Your task to perform on an android device: Open wifi settings Image 0: 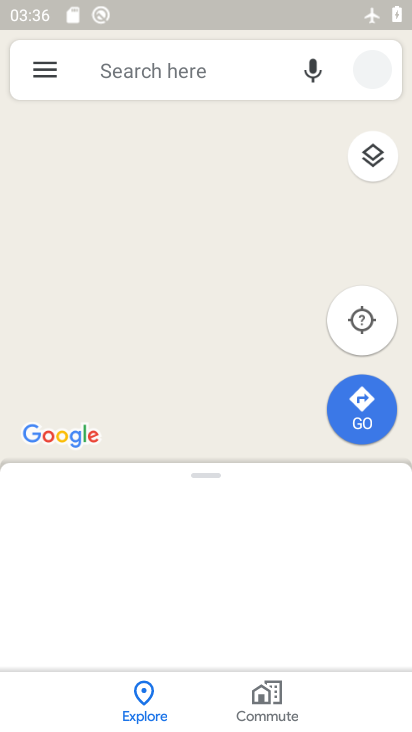
Step 0: press home button
Your task to perform on an android device: Open wifi settings Image 1: 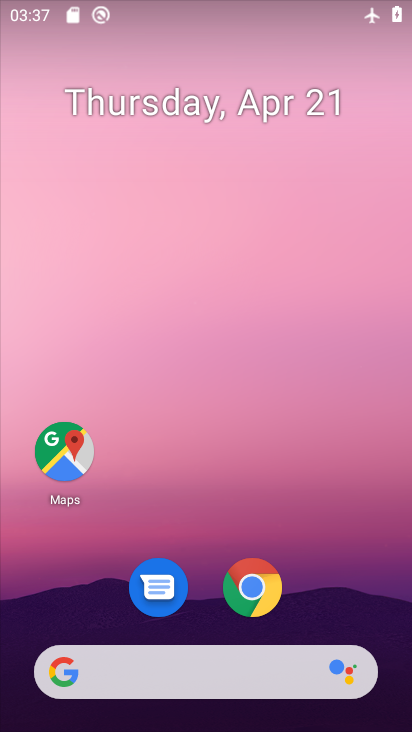
Step 1: drag from (344, 589) to (371, 166)
Your task to perform on an android device: Open wifi settings Image 2: 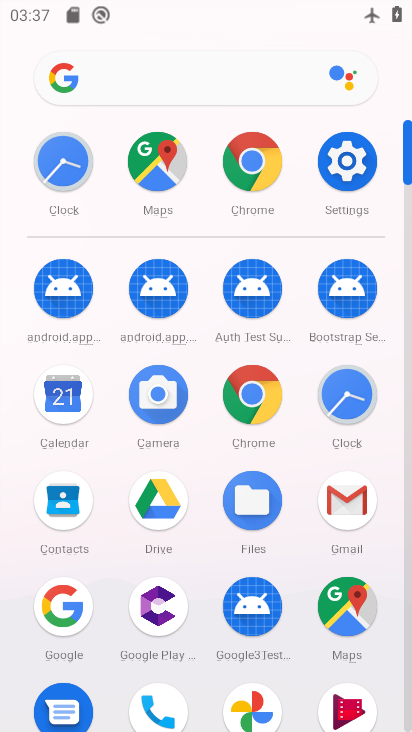
Step 2: click (346, 169)
Your task to perform on an android device: Open wifi settings Image 3: 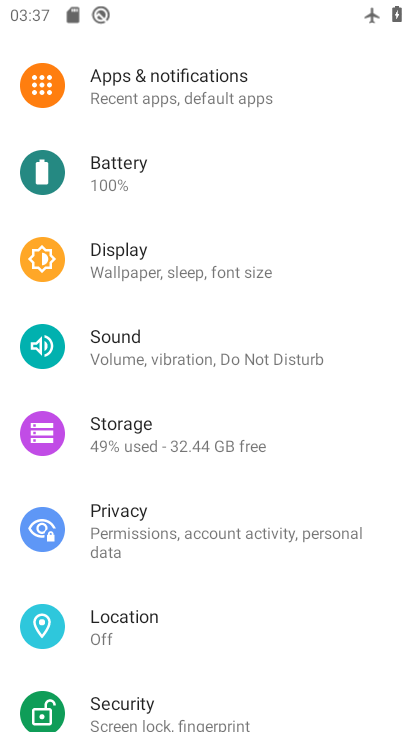
Step 3: drag from (339, 638) to (340, 394)
Your task to perform on an android device: Open wifi settings Image 4: 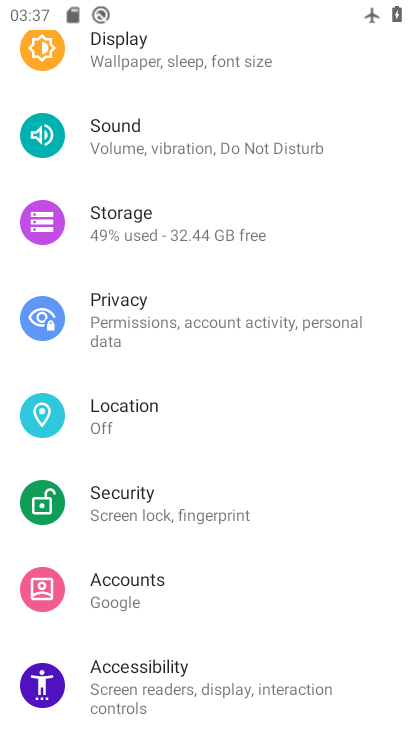
Step 4: drag from (319, 610) to (331, 456)
Your task to perform on an android device: Open wifi settings Image 5: 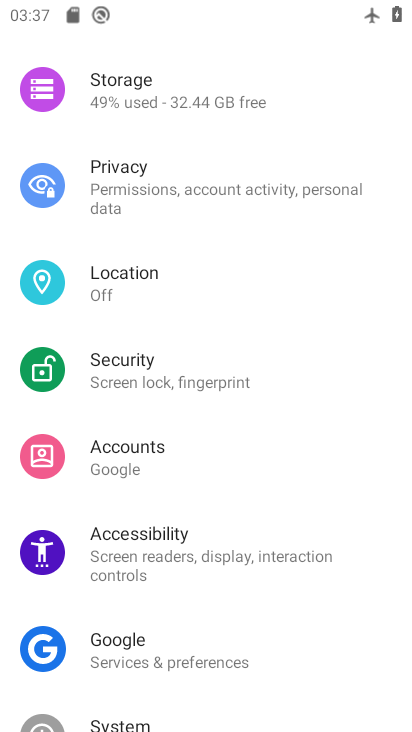
Step 5: drag from (345, 640) to (359, 453)
Your task to perform on an android device: Open wifi settings Image 6: 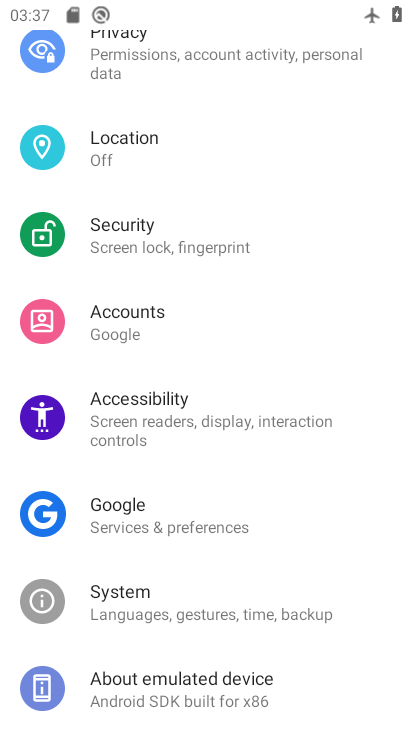
Step 6: drag from (368, 357) to (369, 481)
Your task to perform on an android device: Open wifi settings Image 7: 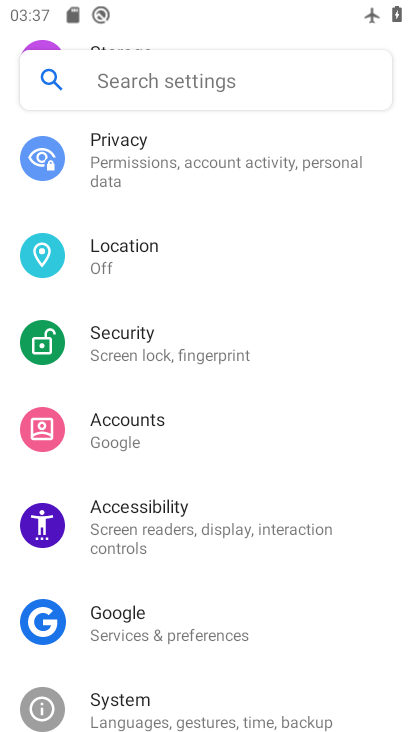
Step 7: drag from (358, 267) to (335, 451)
Your task to perform on an android device: Open wifi settings Image 8: 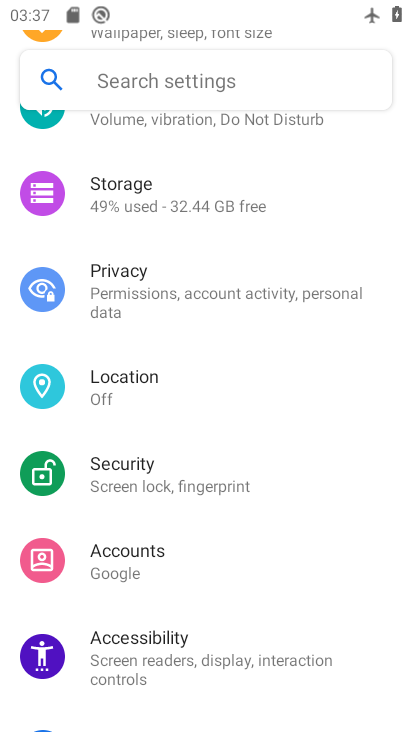
Step 8: drag from (376, 235) to (365, 405)
Your task to perform on an android device: Open wifi settings Image 9: 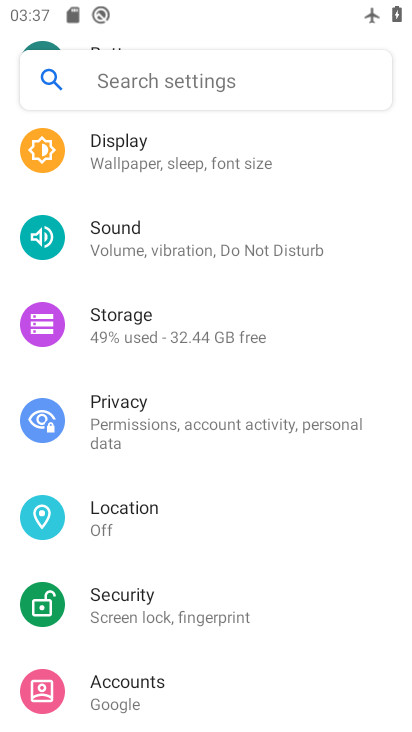
Step 9: drag from (363, 257) to (373, 401)
Your task to perform on an android device: Open wifi settings Image 10: 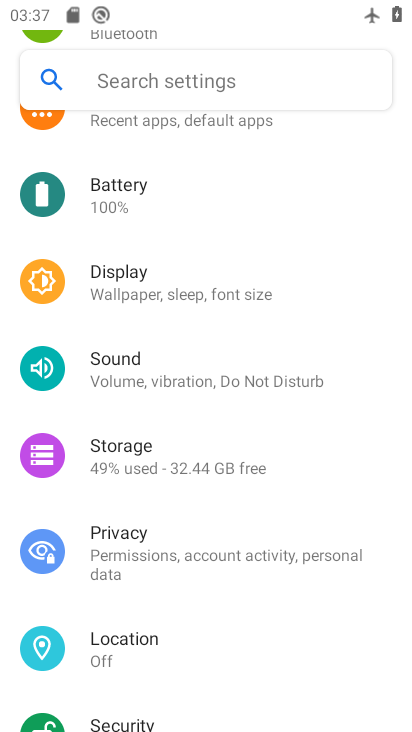
Step 10: drag from (361, 276) to (362, 409)
Your task to perform on an android device: Open wifi settings Image 11: 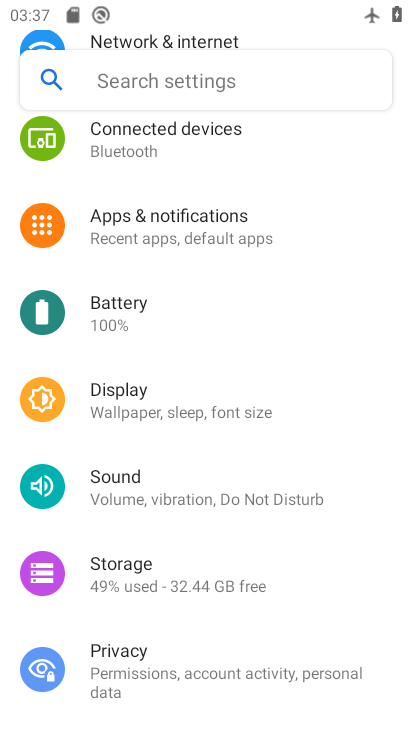
Step 11: drag from (376, 222) to (380, 344)
Your task to perform on an android device: Open wifi settings Image 12: 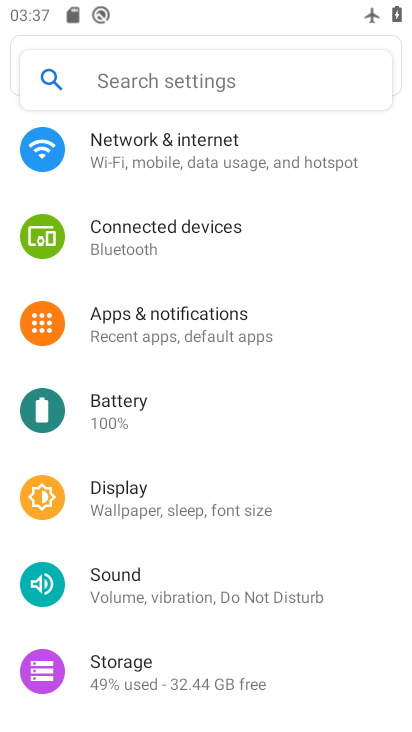
Step 12: drag from (350, 242) to (347, 369)
Your task to perform on an android device: Open wifi settings Image 13: 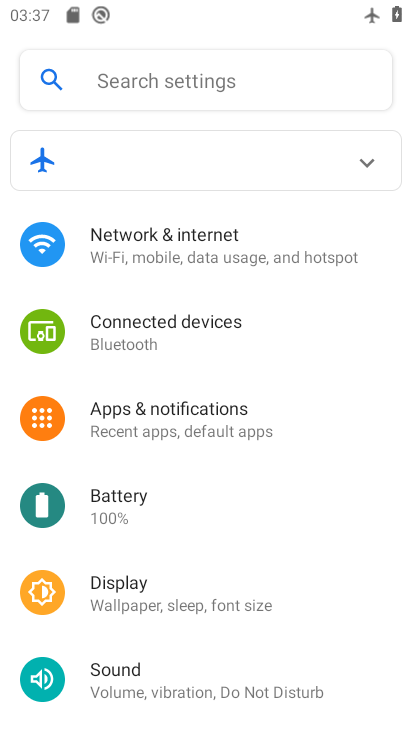
Step 13: click (265, 258)
Your task to perform on an android device: Open wifi settings Image 14: 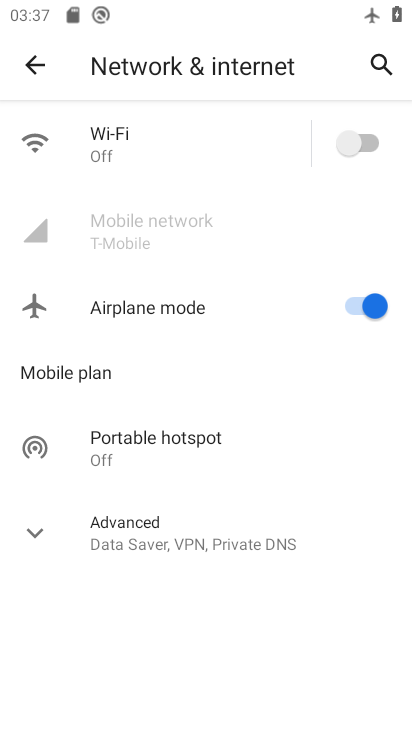
Step 14: click (212, 150)
Your task to perform on an android device: Open wifi settings Image 15: 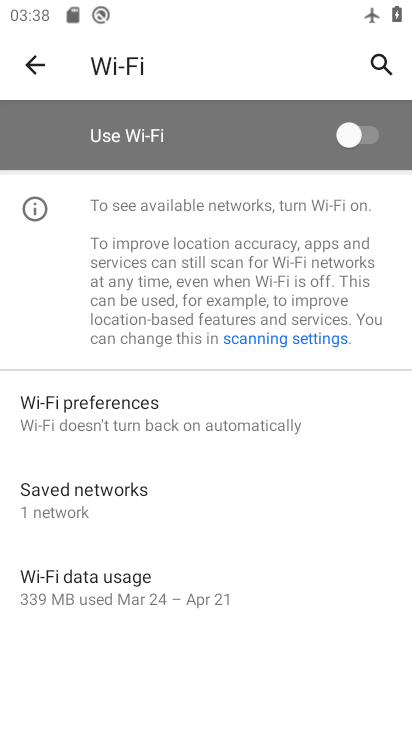
Step 15: task complete